Your task to perform on an android device: Go to Google Image 0: 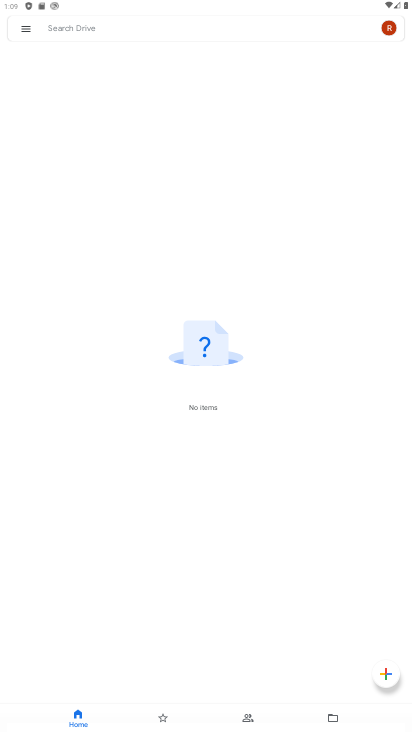
Step 0: press home button
Your task to perform on an android device: Go to Google Image 1: 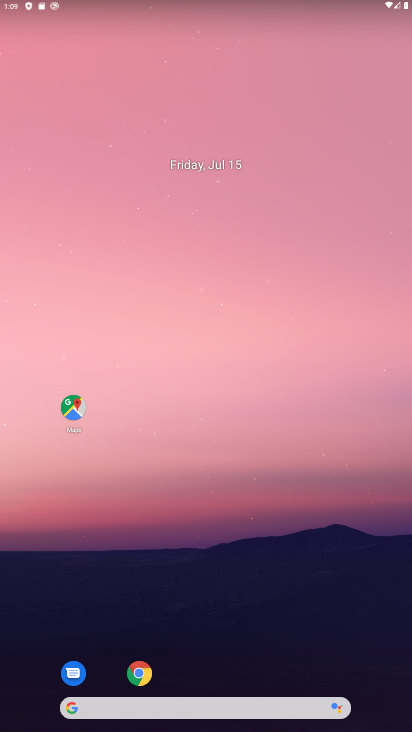
Step 1: drag from (248, 650) to (139, 91)
Your task to perform on an android device: Go to Google Image 2: 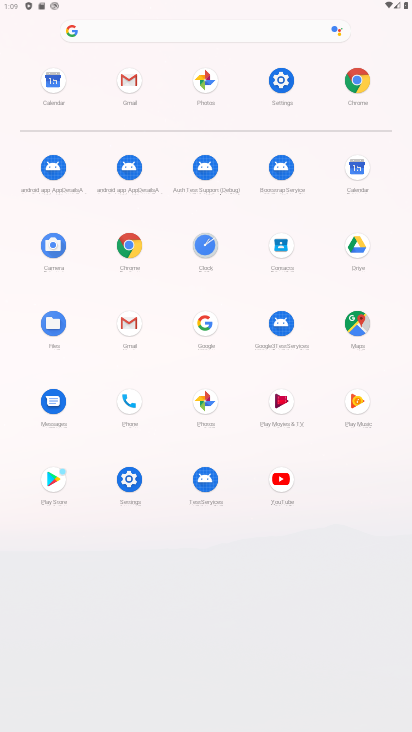
Step 2: click (201, 333)
Your task to perform on an android device: Go to Google Image 3: 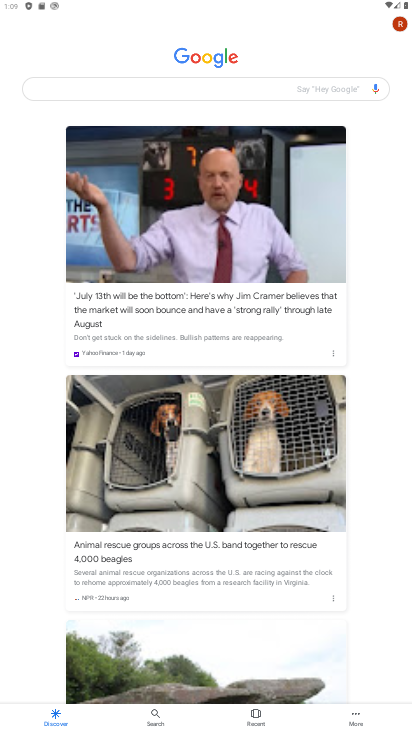
Step 3: task complete